Your task to perform on an android device: Open my contact list Image 0: 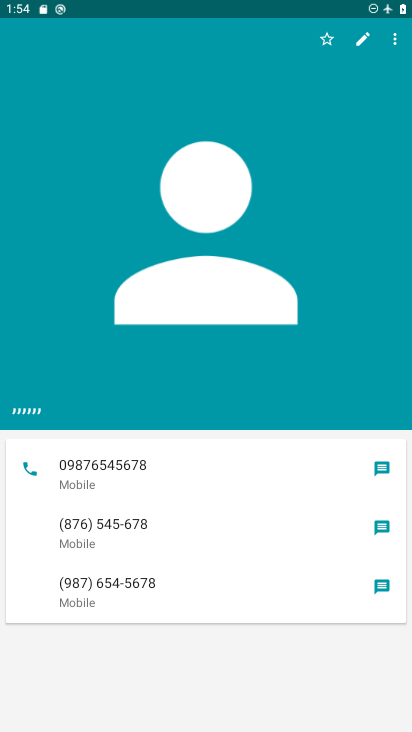
Step 0: drag from (187, 636) to (240, 114)
Your task to perform on an android device: Open my contact list Image 1: 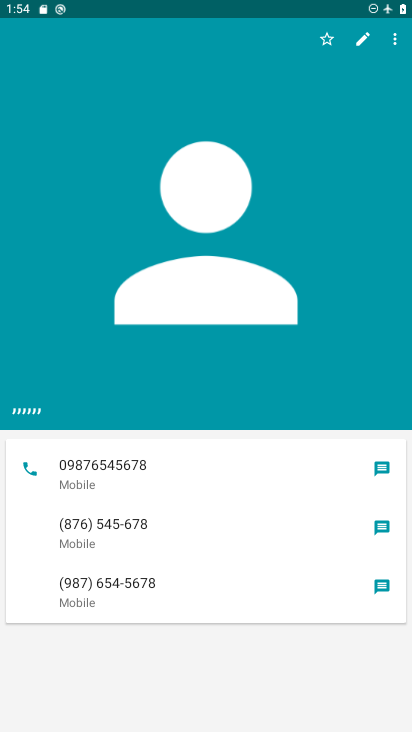
Step 1: press home button
Your task to perform on an android device: Open my contact list Image 2: 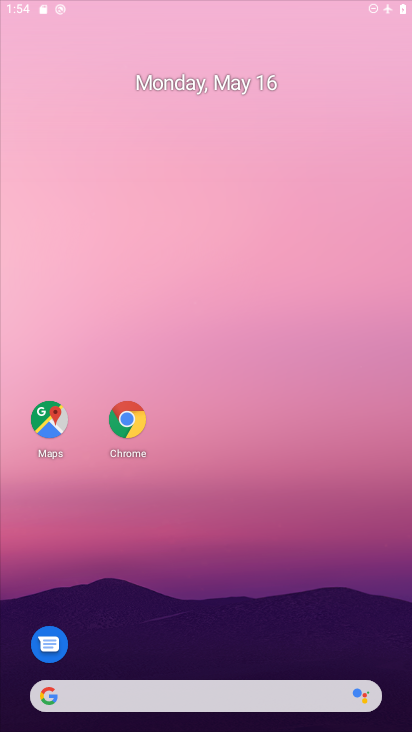
Step 2: drag from (200, 569) to (179, 11)
Your task to perform on an android device: Open my contact list Image 3: 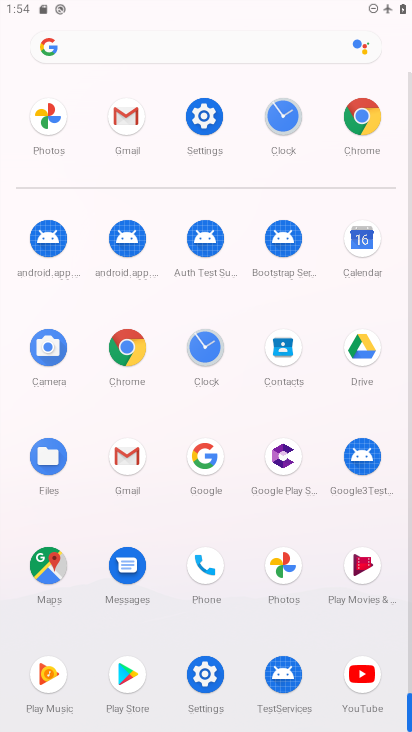
Step 3: click (288, 342)
Your task to perform on an android device: Open my contact list Image 4: 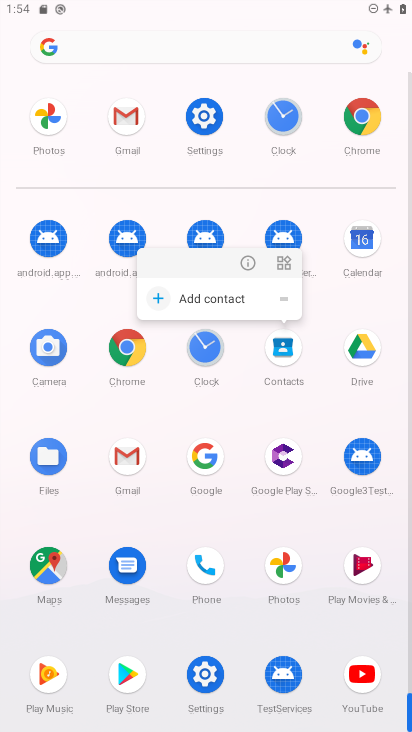
Step 4: click (247, 257)
Your task to perform on an android device: Open my contact list Image 5: 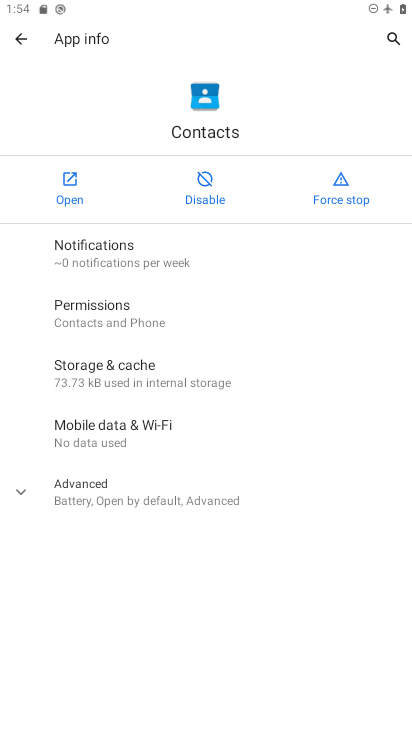
Step 5: click (59, 193)
Your task to perform on an android device: Open my contact list Image 6: 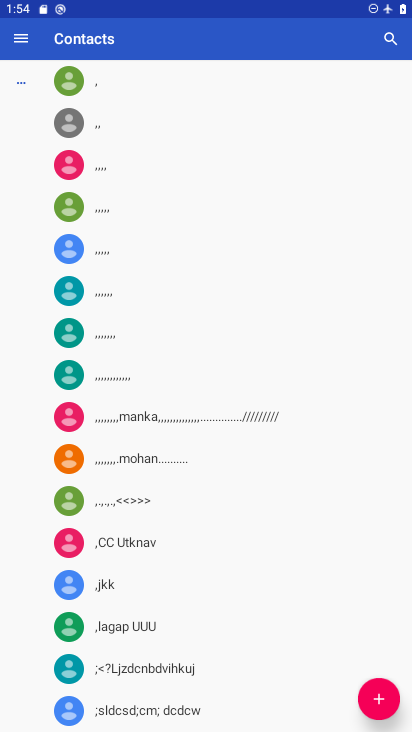
Step 6: task complete